Your task to perform on an android device: open chrome and create a bookmark for the current page Image 0: 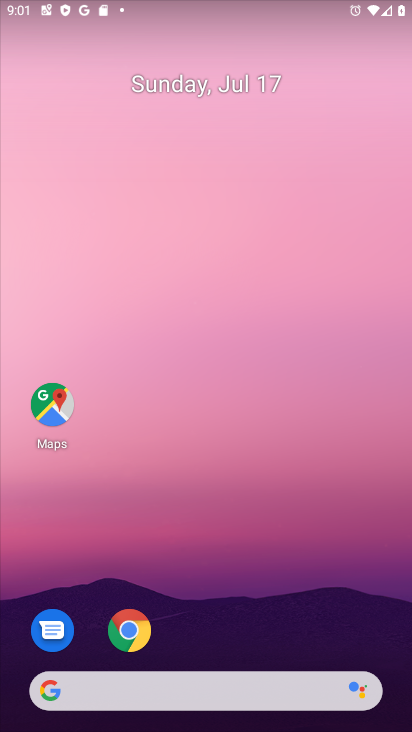
Step 0: click (134, 637)
Your task to perform on an android device: open chrome and create a bookmark for the current page Image 1: 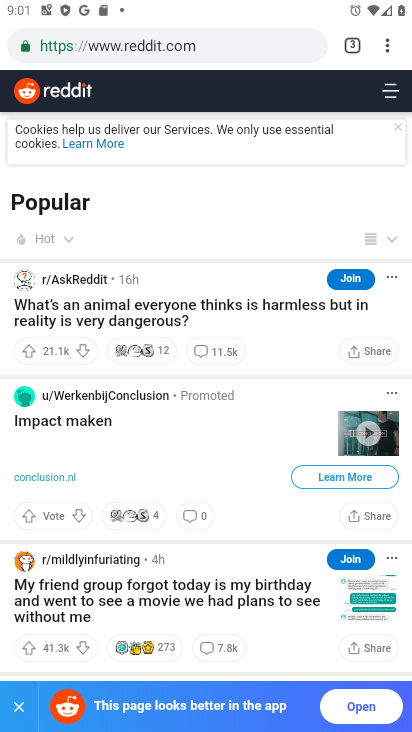
Step 1: click (388, 49)
Your task to perform on an android device: open chrome and create a bookmark for the current page Image 2: 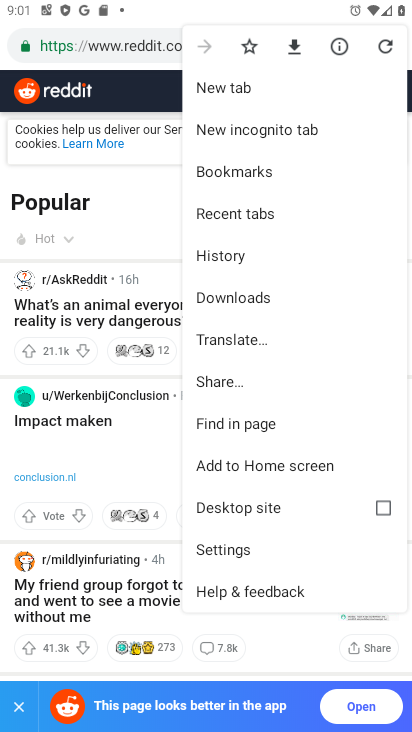
Step 2: click (249, 49)
Your task to perform on an android device: open chrome and create a bookmark for the current page Image 3: 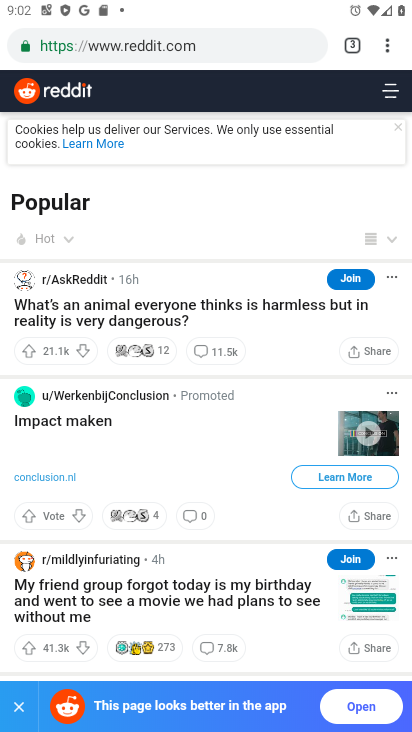
Step 3: task complete